Your task to perform on an android device: Open the stopwatch Image 0: 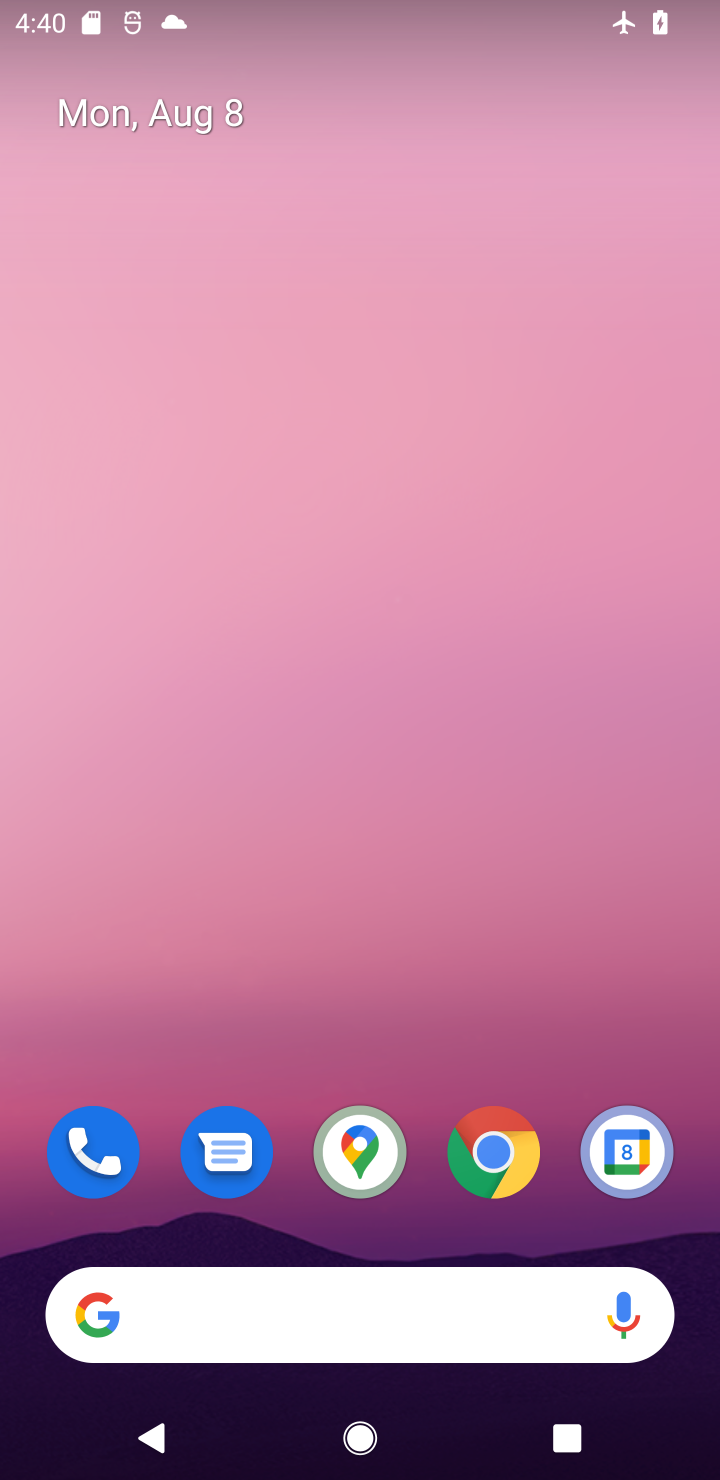
Step 0: drag from (337, 1259) to (512, 0)
Your task to perform on an android device: Open the stopwatch Image 1: 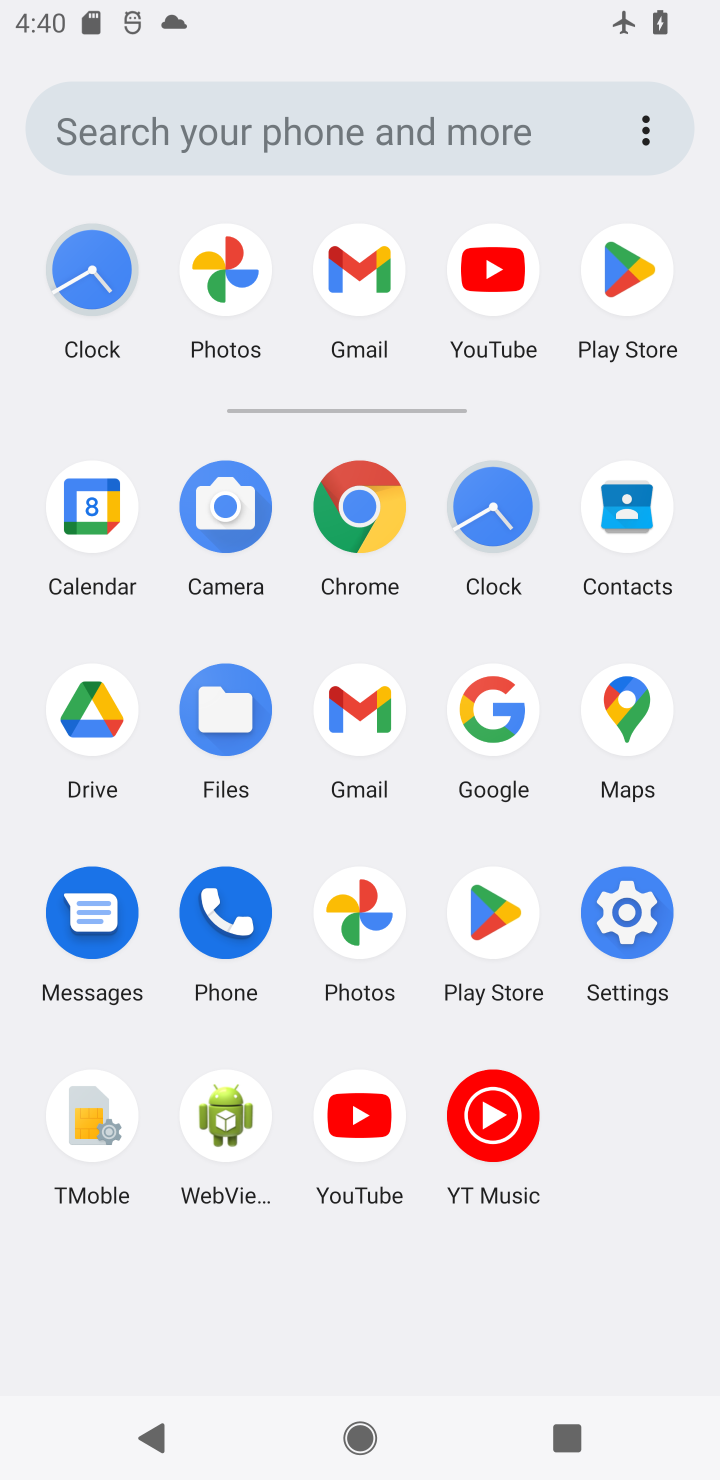
Step 1: click (498, 535)
Your task to perform on an android device: Open the stopwatch Image 2: 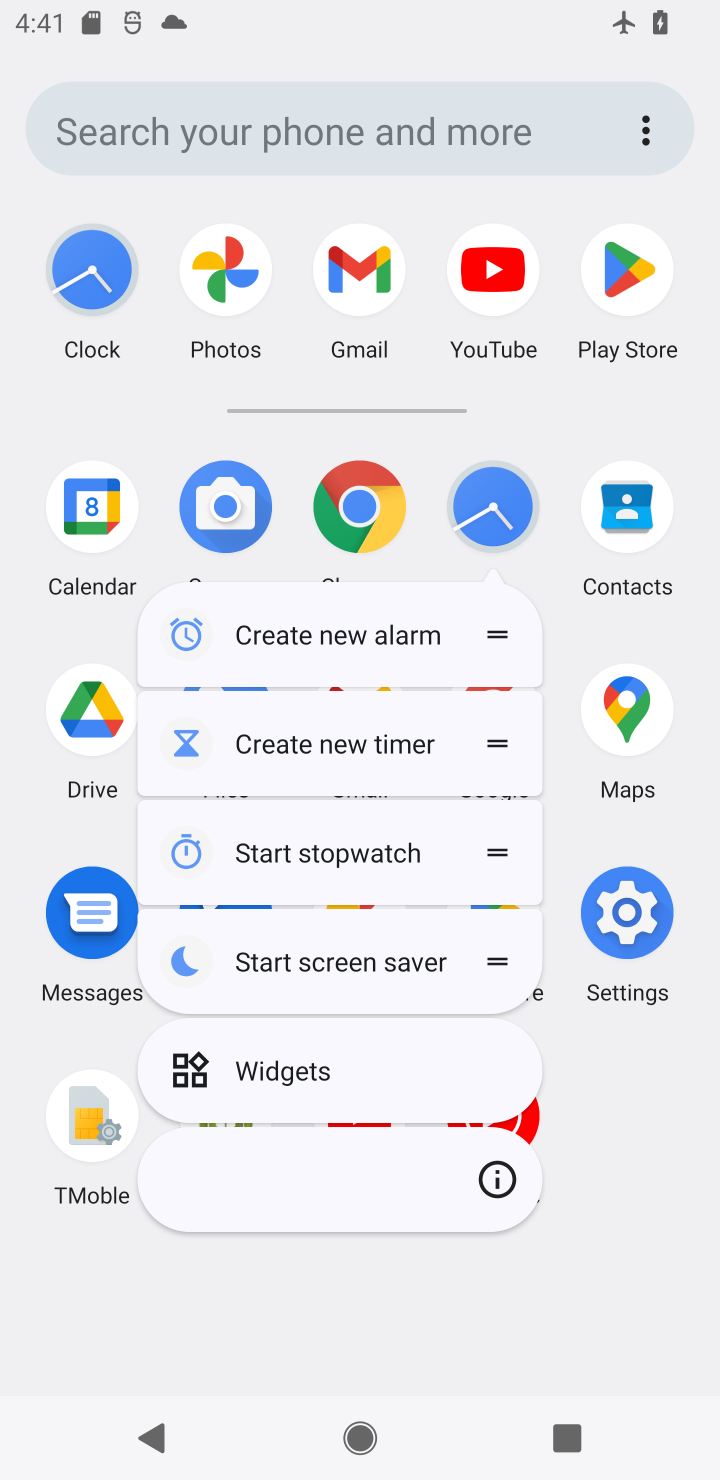
Step 2: click (467, 540)
Your task to perform on an android device: Open the stopwatch Image 3: 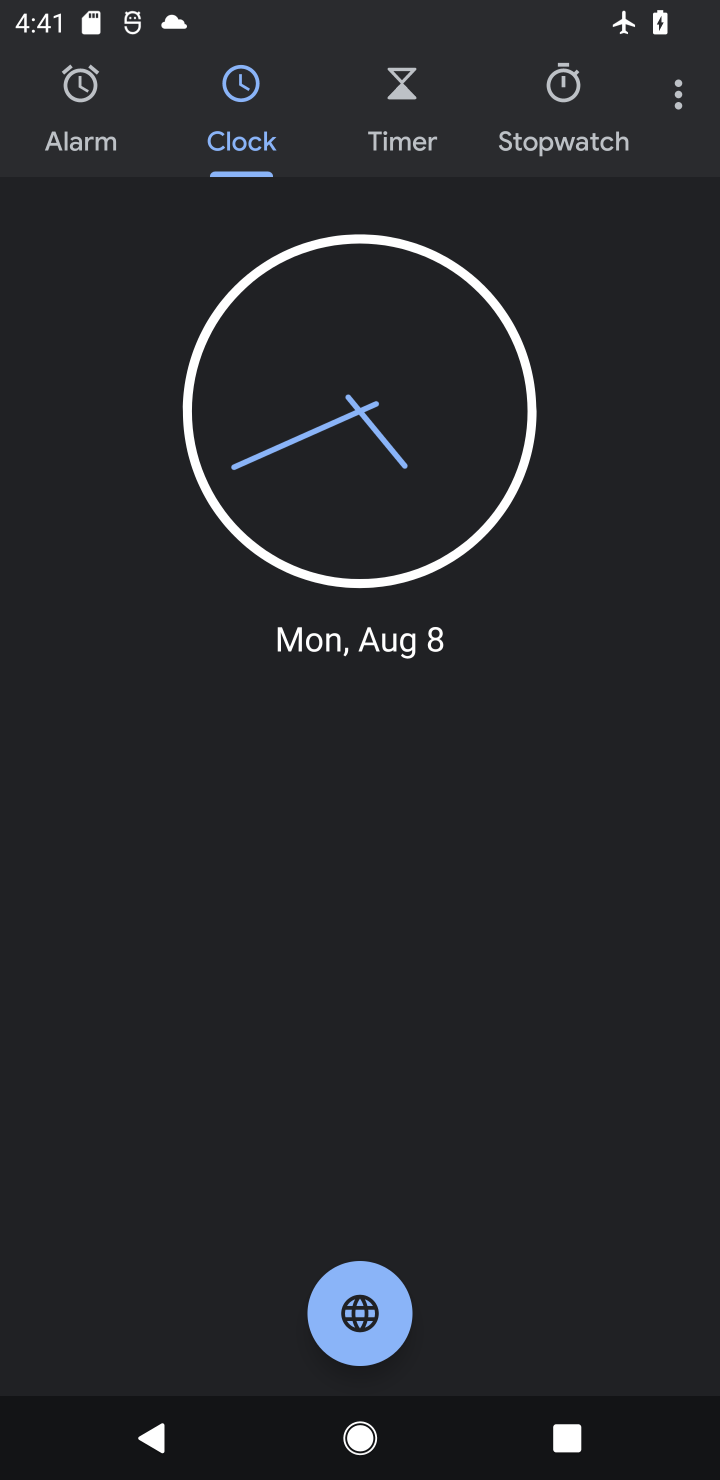
Step 3: click (572, 83)
Your task to perform on an android device: Open the stopwatch Image 4: 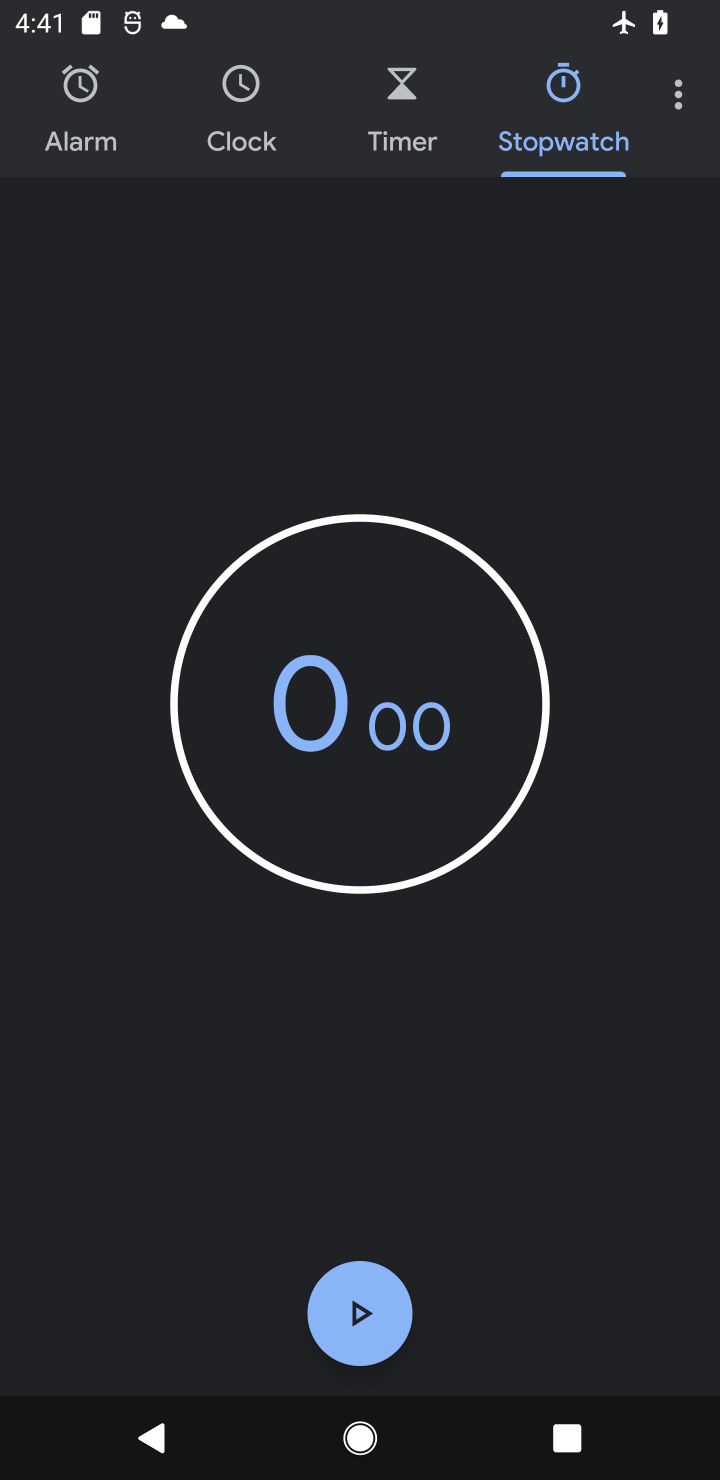
Step 4: task complete